Your task to perform on an android device: toggle airplane mode Image 0: 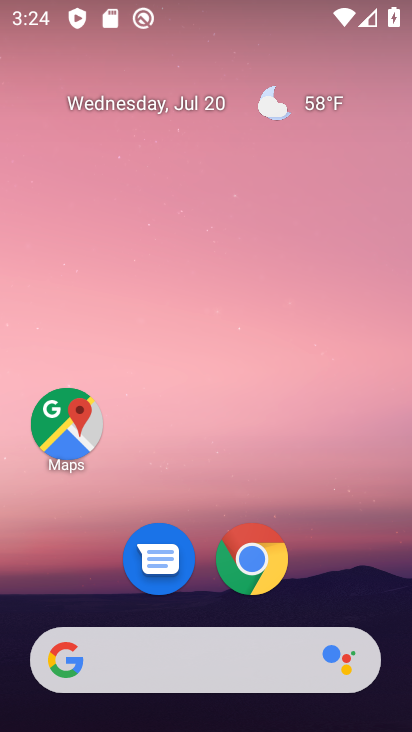
Step 0: drag from (374, 12) to (239, 527)
Your task to perform on an android device: toggle airplane mode Image 1: 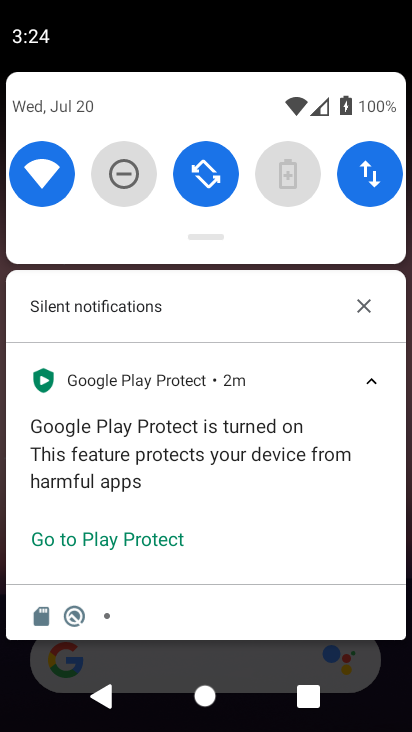
Step 1: drag from (216, 213) to (196, 661)
Your task to perform on an android device: toggle airplane mode Image 2: 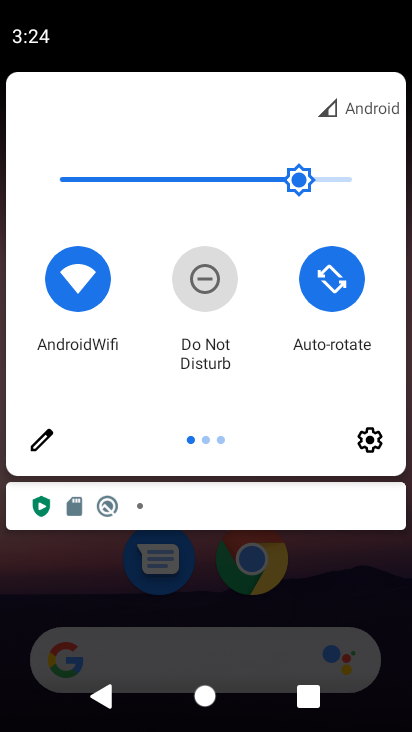
Step 2: drag from (364, 293) to (17, 357)
Your task to perform on an android device: toggle airplane mode Image 3: 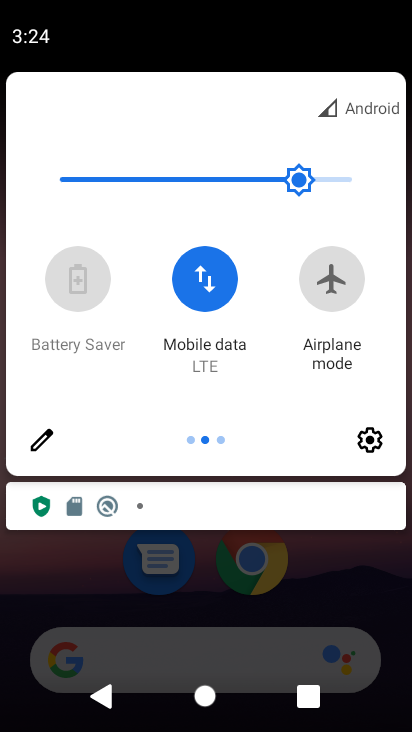
Step 3: click (344, 297)
Your task to perform on an android device: toggle airplane mode Image 4: 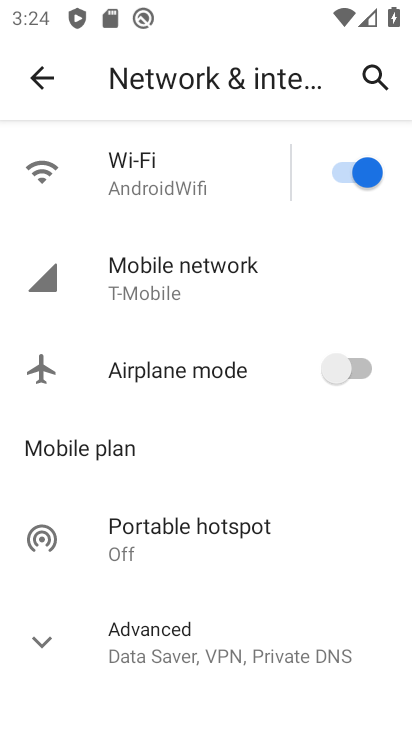
Step 4: click (347, 370)
Your task to perform on an android device: toggle airplane mode Image 5: 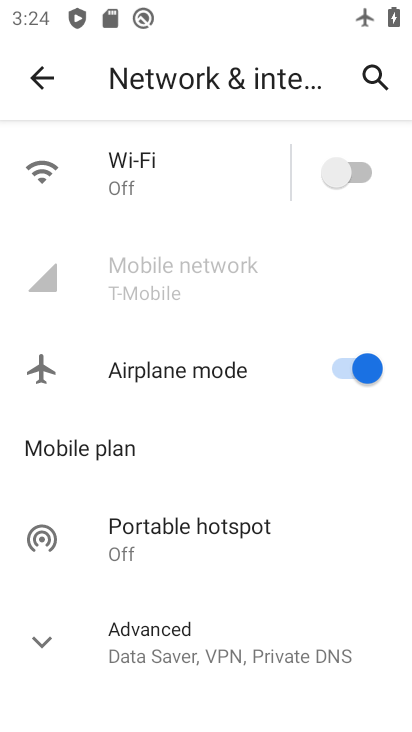
Step 5: task complete